Your task to perform on an android device: turn off picture-in-picture Image 0: 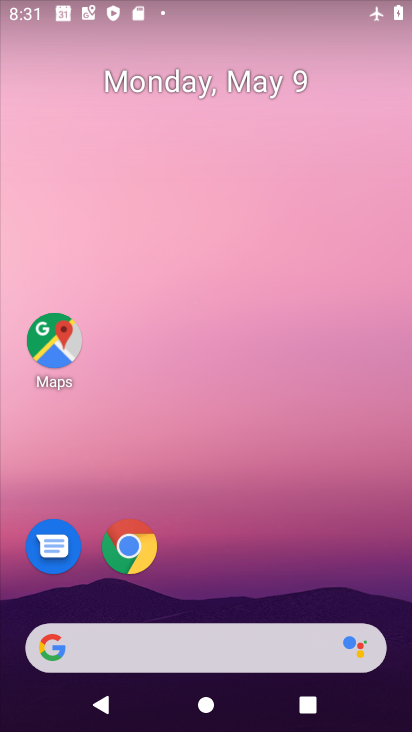
Step 0: click (138, 555)
Your task to perform on an android device: turn off picture-in-picture Image 1: 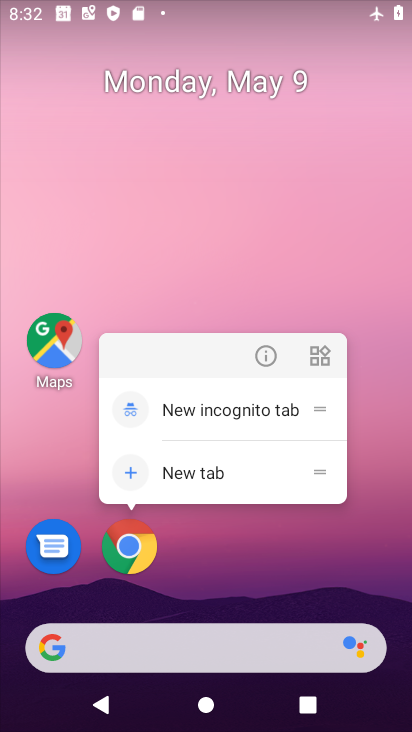
Step 1: click (262, 356)
Your task to perform on an android device: turn off picture-in-picture Image 2: 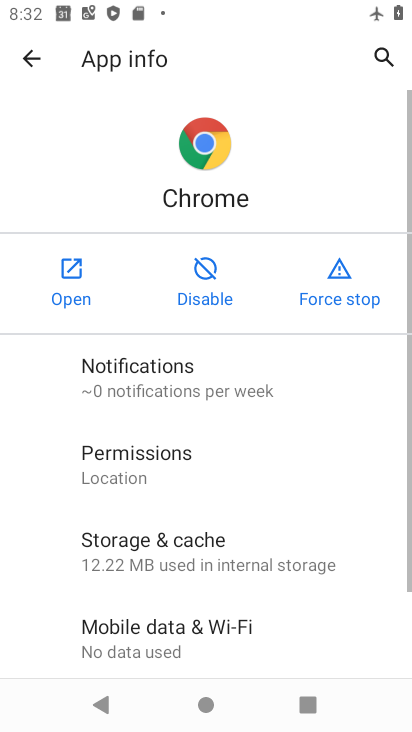
Step 2: drag from (266, 604) to (273, 8)
Your task to perform on an android device: turn off picture-in-picture Image 3: 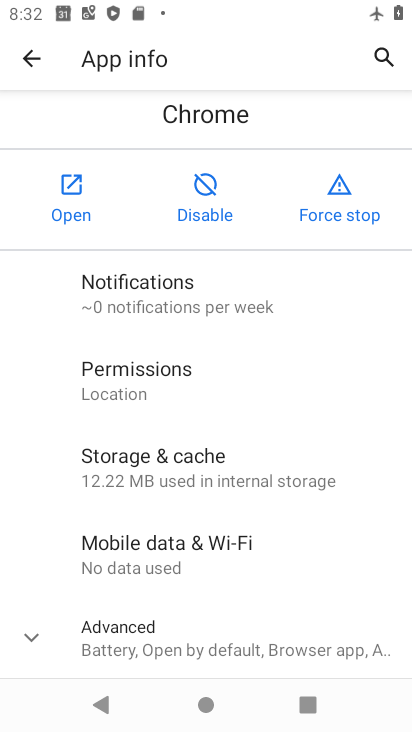
Step 3: click (247, 656)
Your task to perform on an android device: turn off picture-in-picture Image 4: 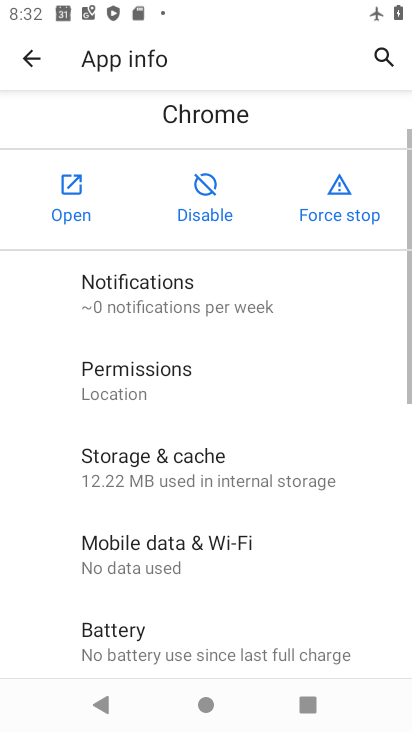
Step 4: drag from (353, 576) to (395, 191)
Your task to perform on an android device: turn off picture-in-picture Image 5: 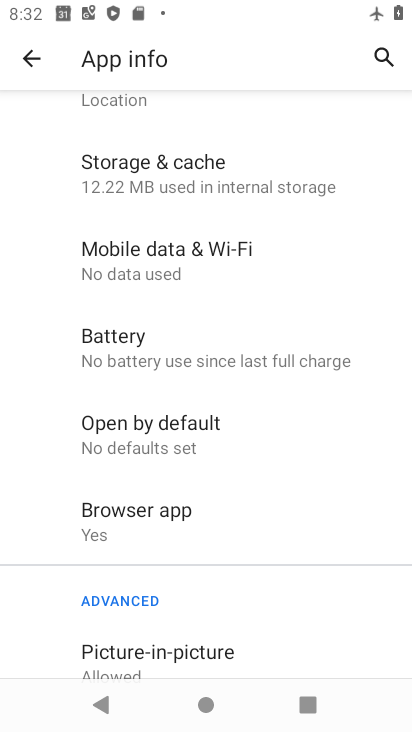
Step 5: drag from (291, 545) to (375, 58)
Your task to perform on an android device: turn off picture-in-picture Image 6: 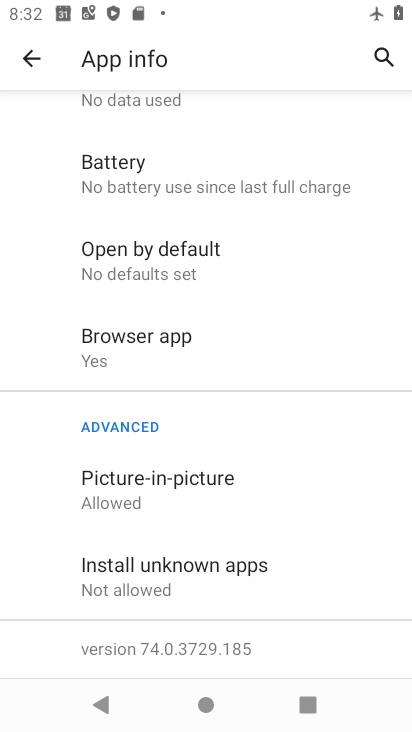
Step 6: click (162, 486)
Your task to perform on an android device: turn off picture-in-picture Image 7: 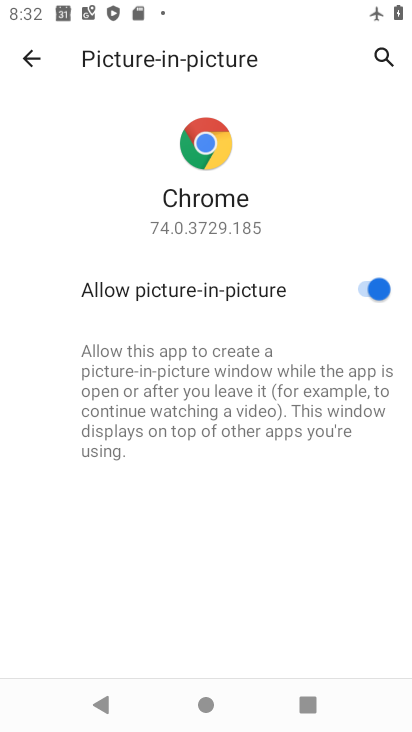
Step 7: click (374, 283)
Your task to perform on an android device: turn off picture-in-picture Image 8: 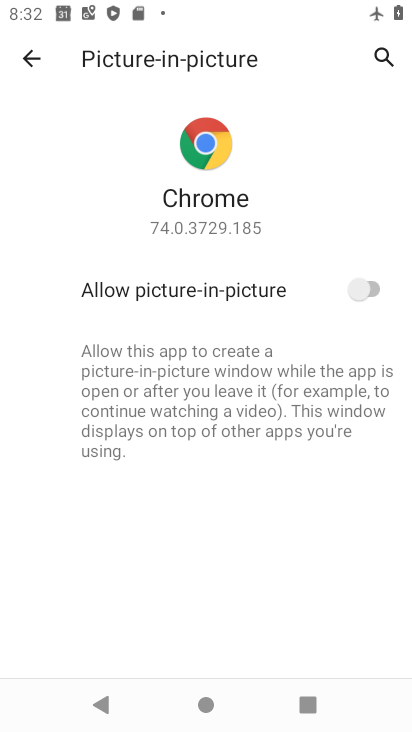
Step 8: task complete